Your task to perform on an android device: Open battery settings Image 0: 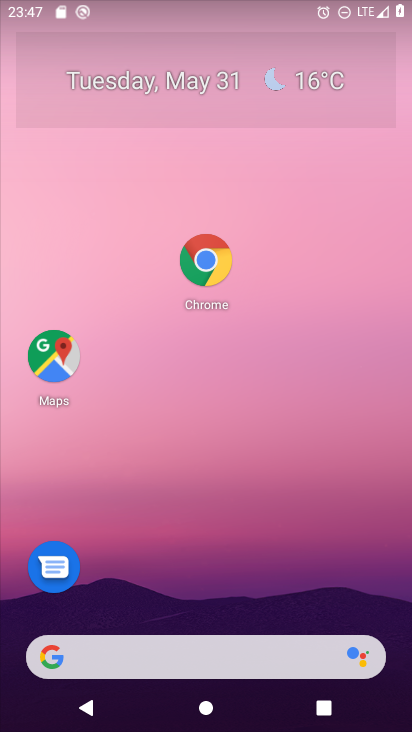
Step 0: drag from (187, 638) to (200, 225)
Your task to perform on an android device: Open battery settings Image 1: 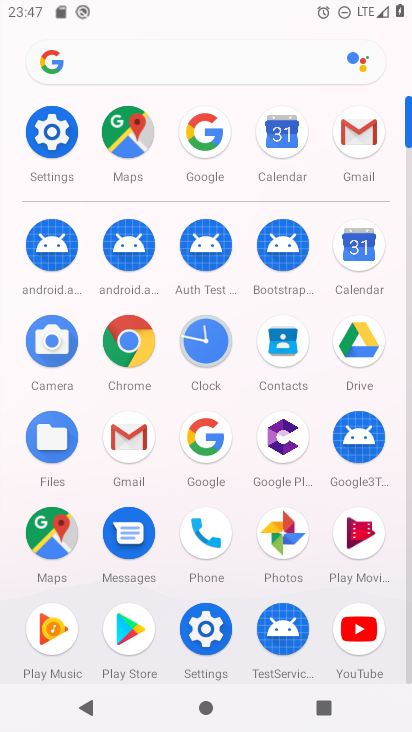
Step 1: click (42, 132)
Your task to perform on an android device: Open battery settings Image 2: 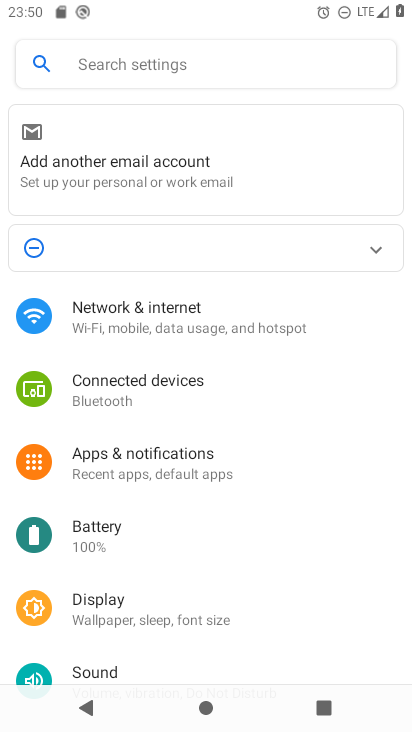
Step 2: click (91, 538)
Your task to perform on an android device: Open battery settings Image 3: 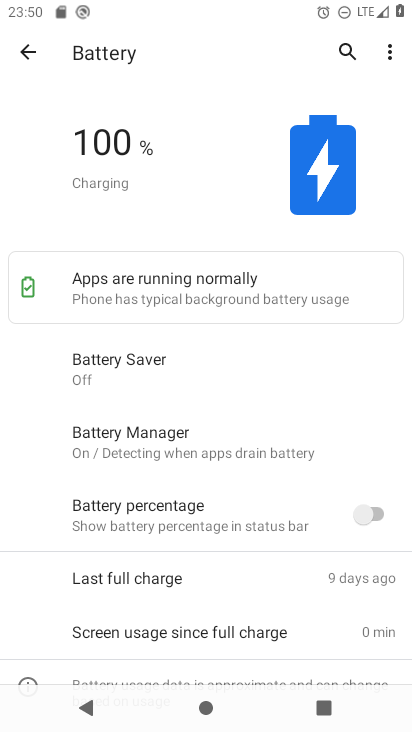
Step 3: task complete